Your task to perform on an android device: Open Google Chrome Image 0: 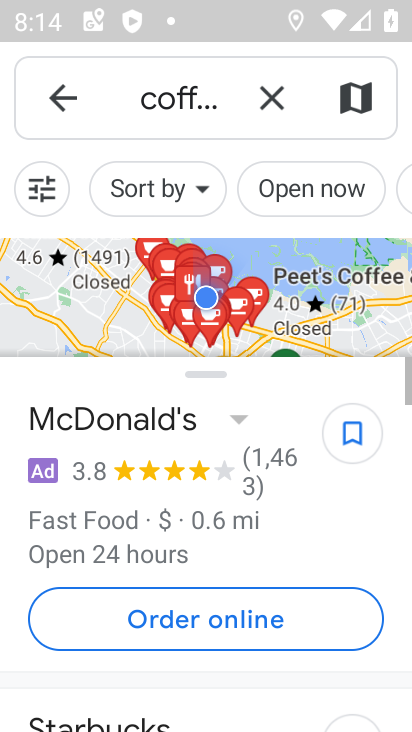
Step 0: press home button
Your task to perform on an android device: Open Google Chrome Image 1: 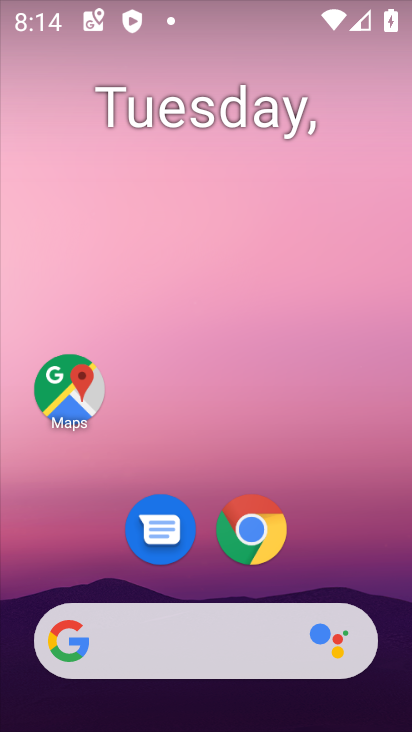
Step 1: click (249, 534)
Your task to perform on an android device: Open Google Chrome Image 2: 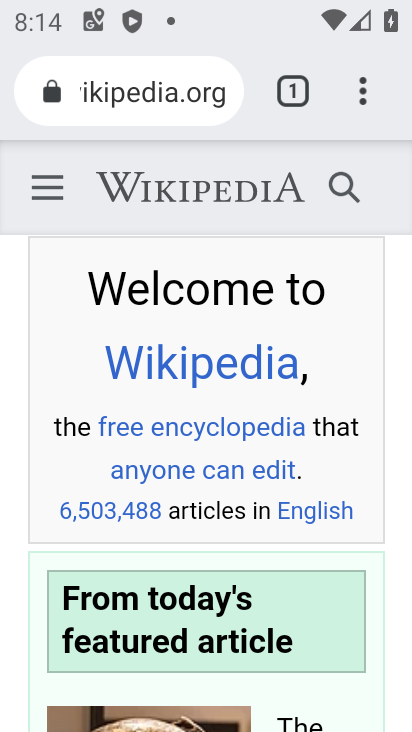
Step 2: task complete